Your task to perform on an android device: empty trash in the gmail app Image 0: 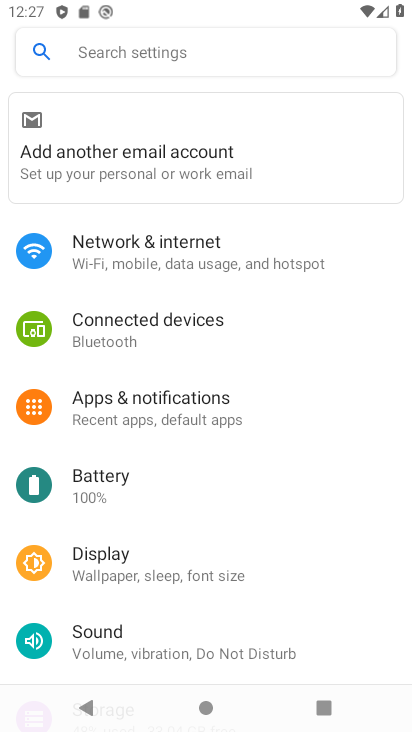
Step 0: press home button
Your task to perform on an android device: empty trash in the gmail app Image 1: 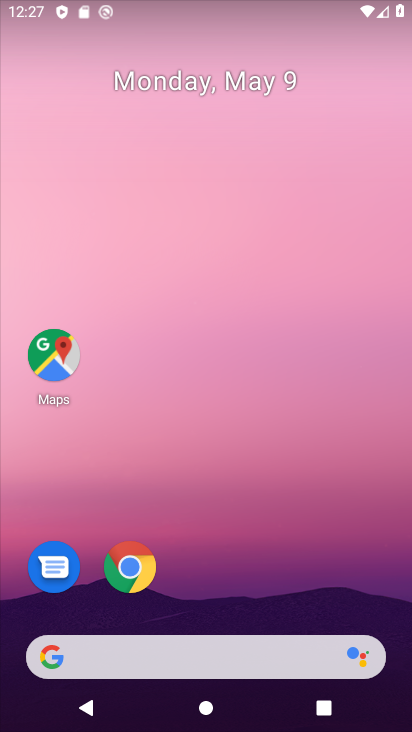
Step 1: drag from (208, 610) to (230, 363)
Your task to perform on an android device: empty trash in the gmail app Image 2: 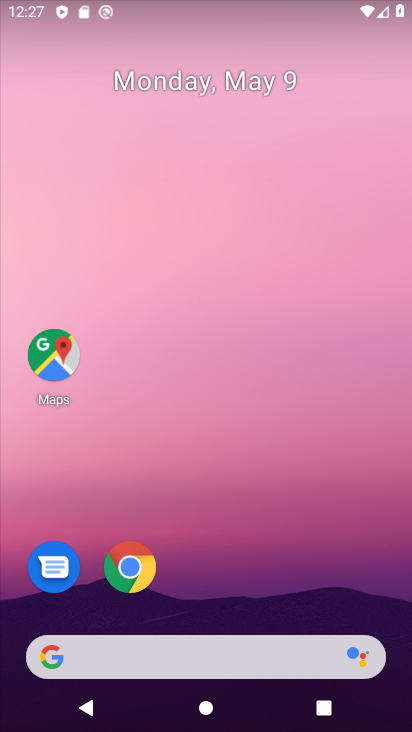
Step 2: drag from (202, 619) to (352, 0)
Your task to perform on an android device: empty trash in the gmail app Image 3: 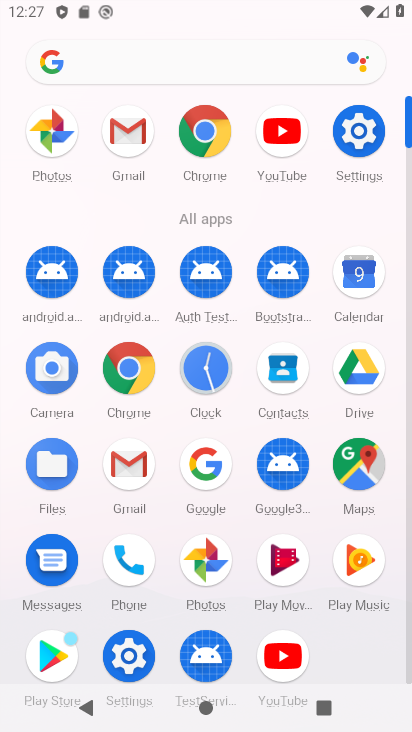
Step 3: click (139, 468)
Your task to perform on an android device: empty trash in the gmail app Image 4: 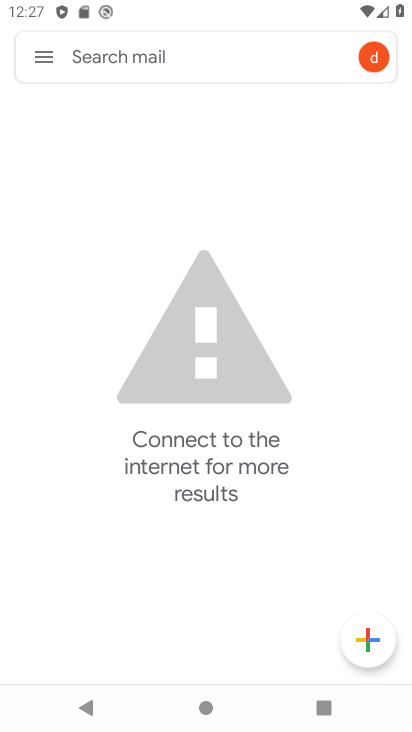
Step 4: click (32, 59)
Your task to perform on an android device: empty trash in the gmail app Image 5: 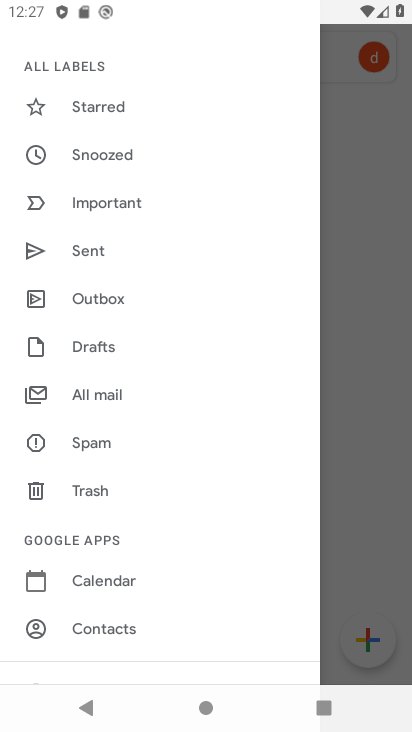
Step 5: click (103, 492)
Your task to perform on an android device: empty trash in the gmail app Image 6: 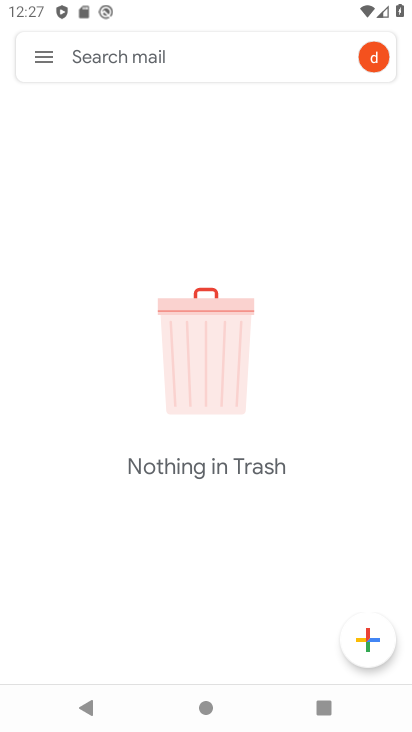
Step 6: task complete